Your task to perform on an android device: uninstall "PlayWell" Image 0: 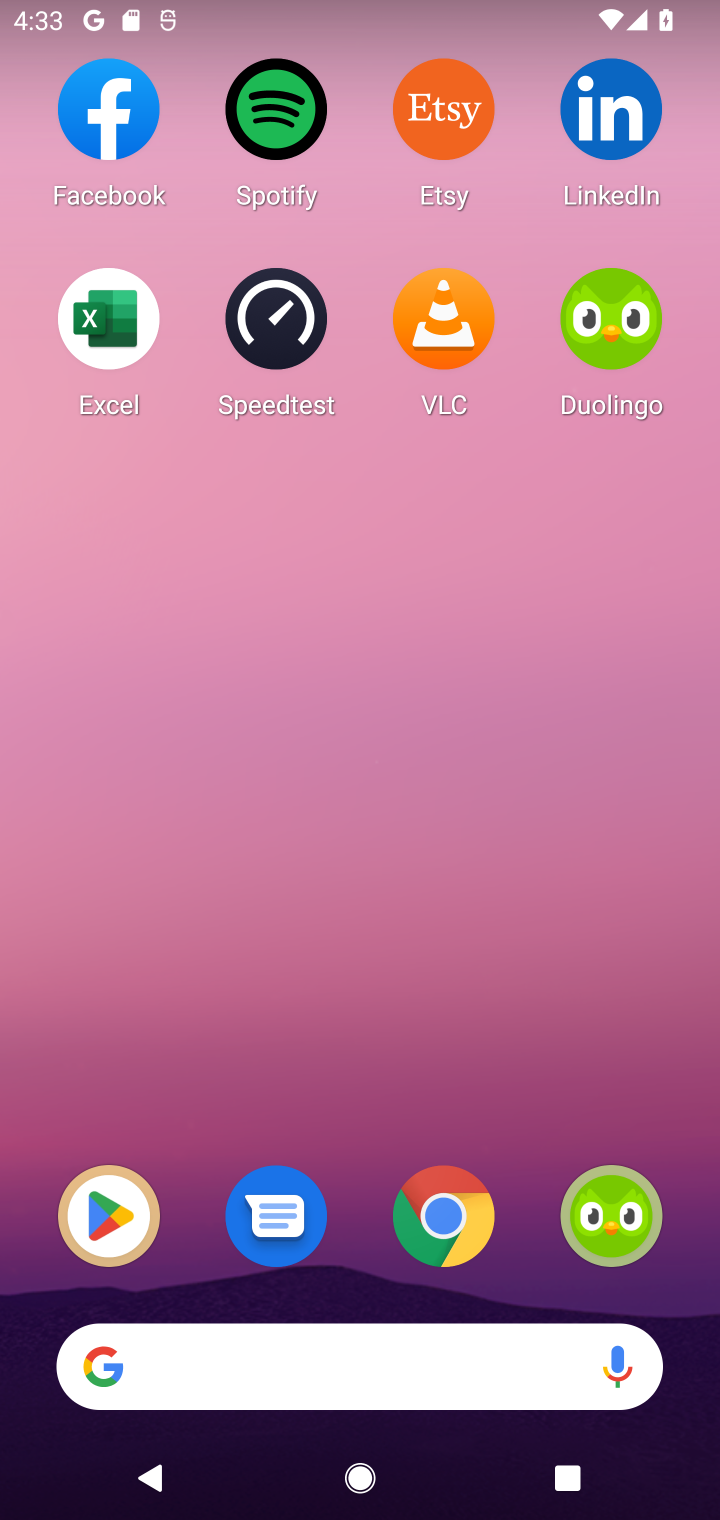
Step 0: click (114, 1250)
Your task to perform on an android device: uninstall "PlayWell" Image 1: 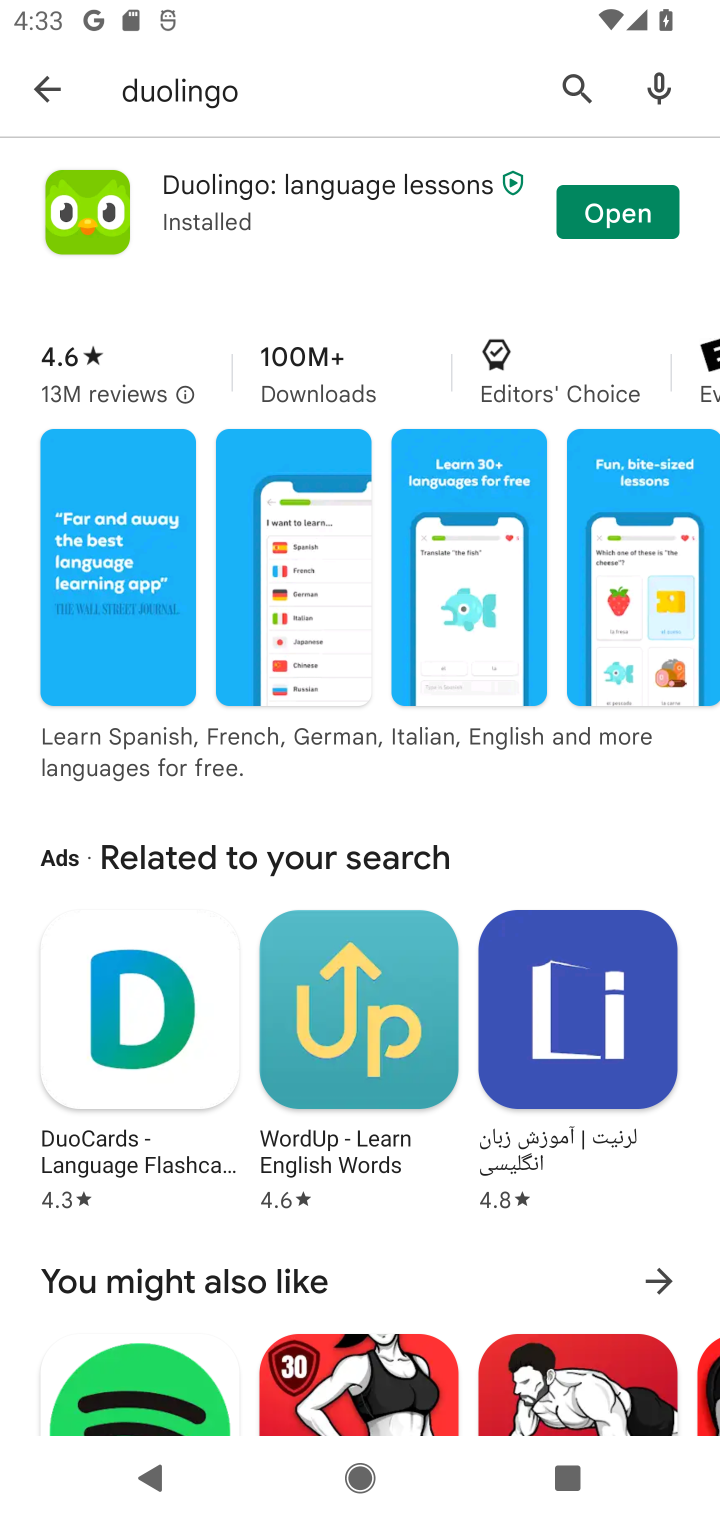
Step 1: click (564, 92)
Your task to perform on an android device: uninstall "PlayWell" Image 2: 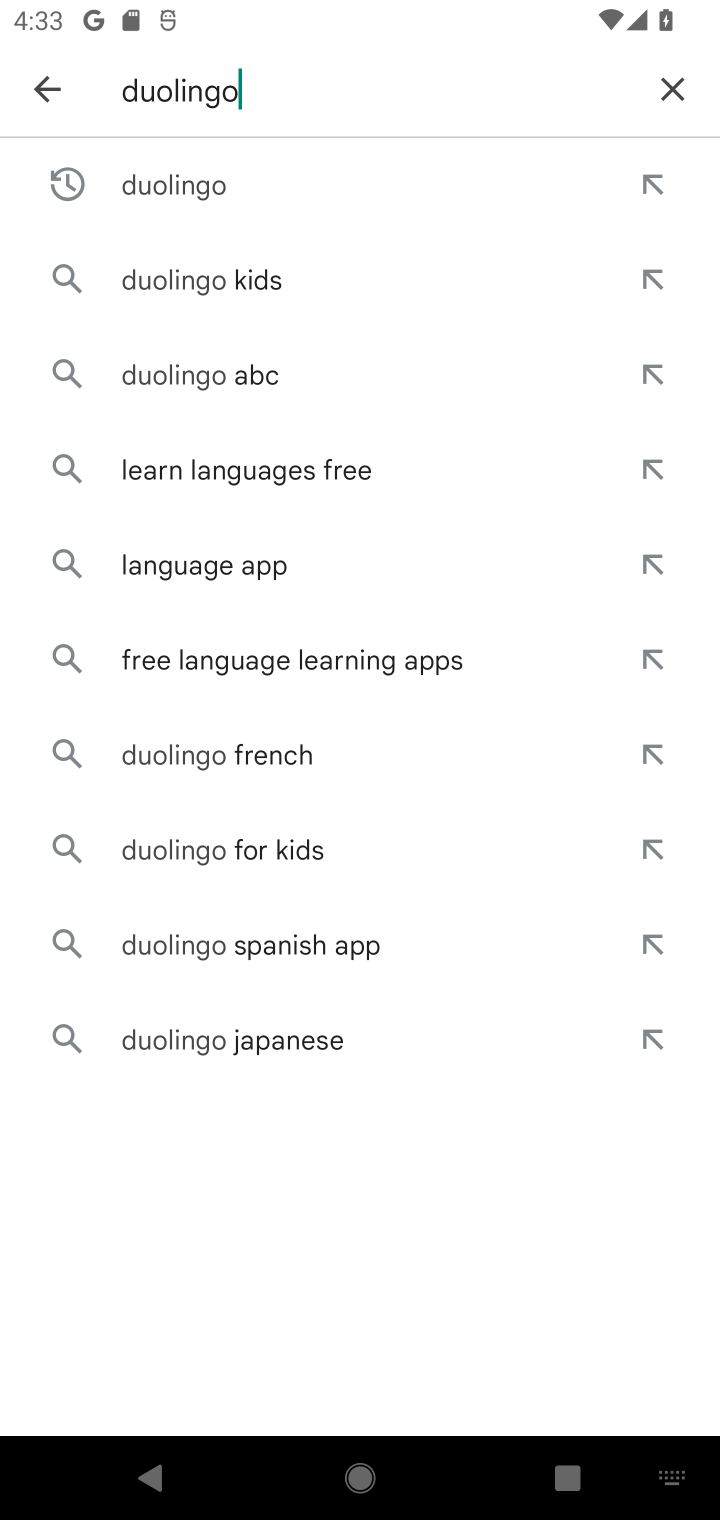
Step 2: click (653, 101)
Your task to perform on an android device: uninstall "PlayWell" Image 3: 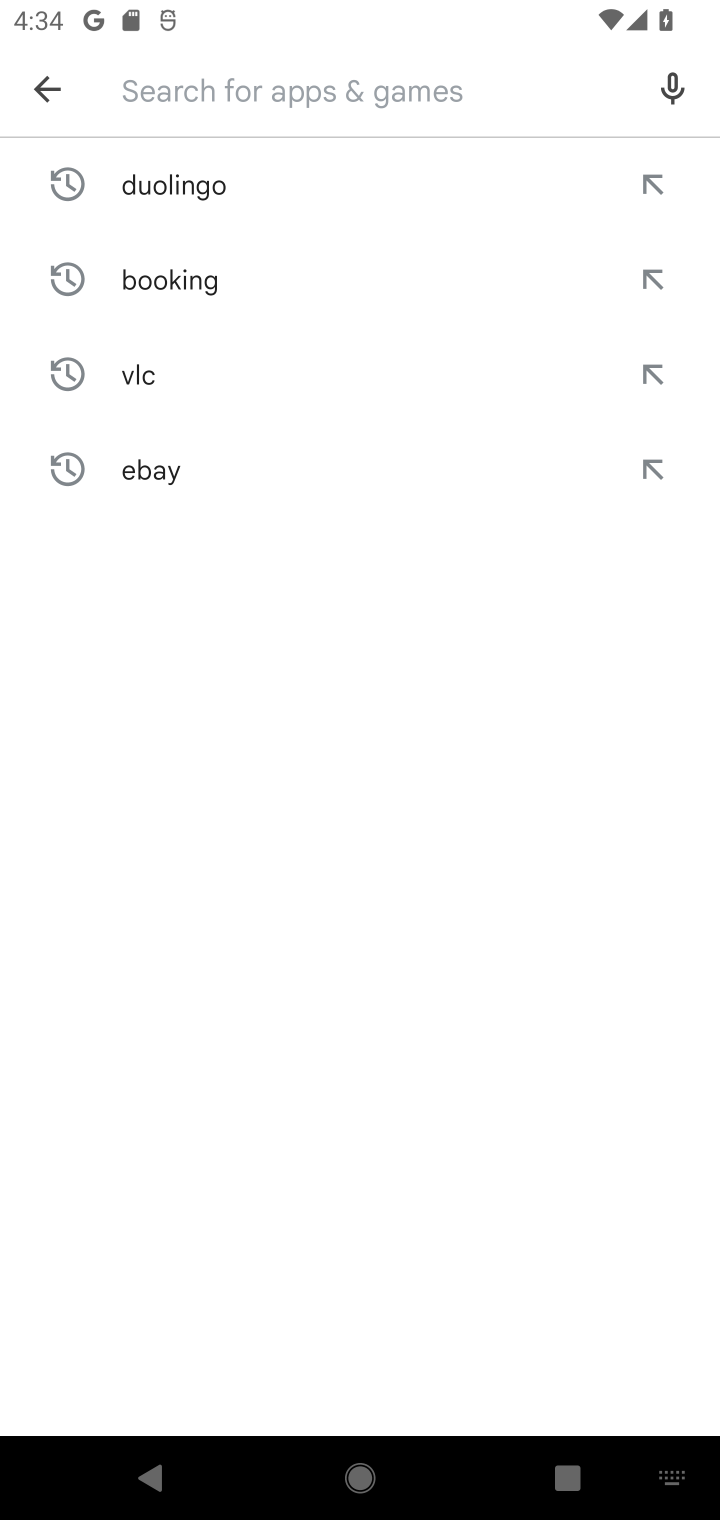
Step 3: type "playwell"
Your task to perform on an android device: uninstall "PlayWell" Image 4: 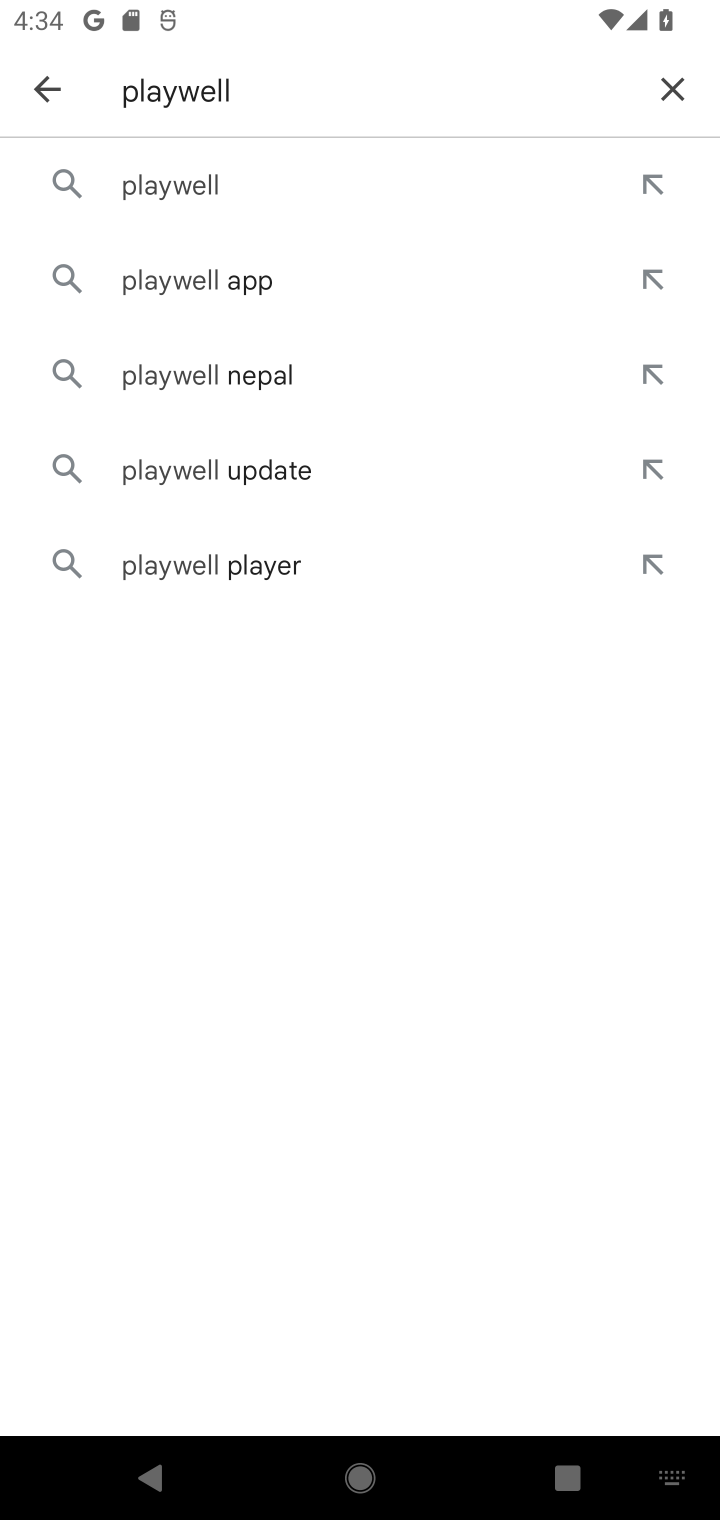
Step 4: click (240, 182)
Your task to perform on an android device: uninstall "PlayWell" Image 5: 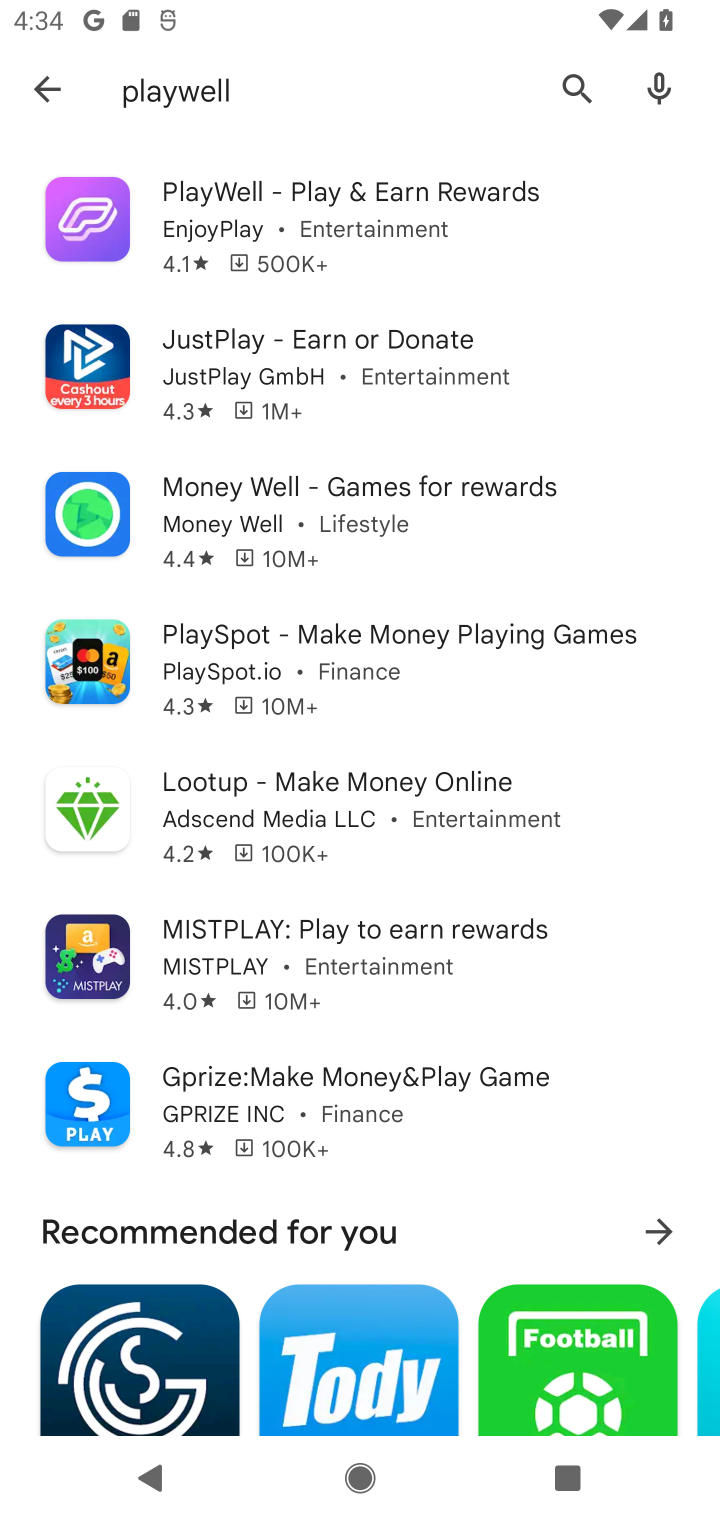
Step 5: click (434, 241)
Your task to perform on an android device: uninstall "PlayWell" Image 6: 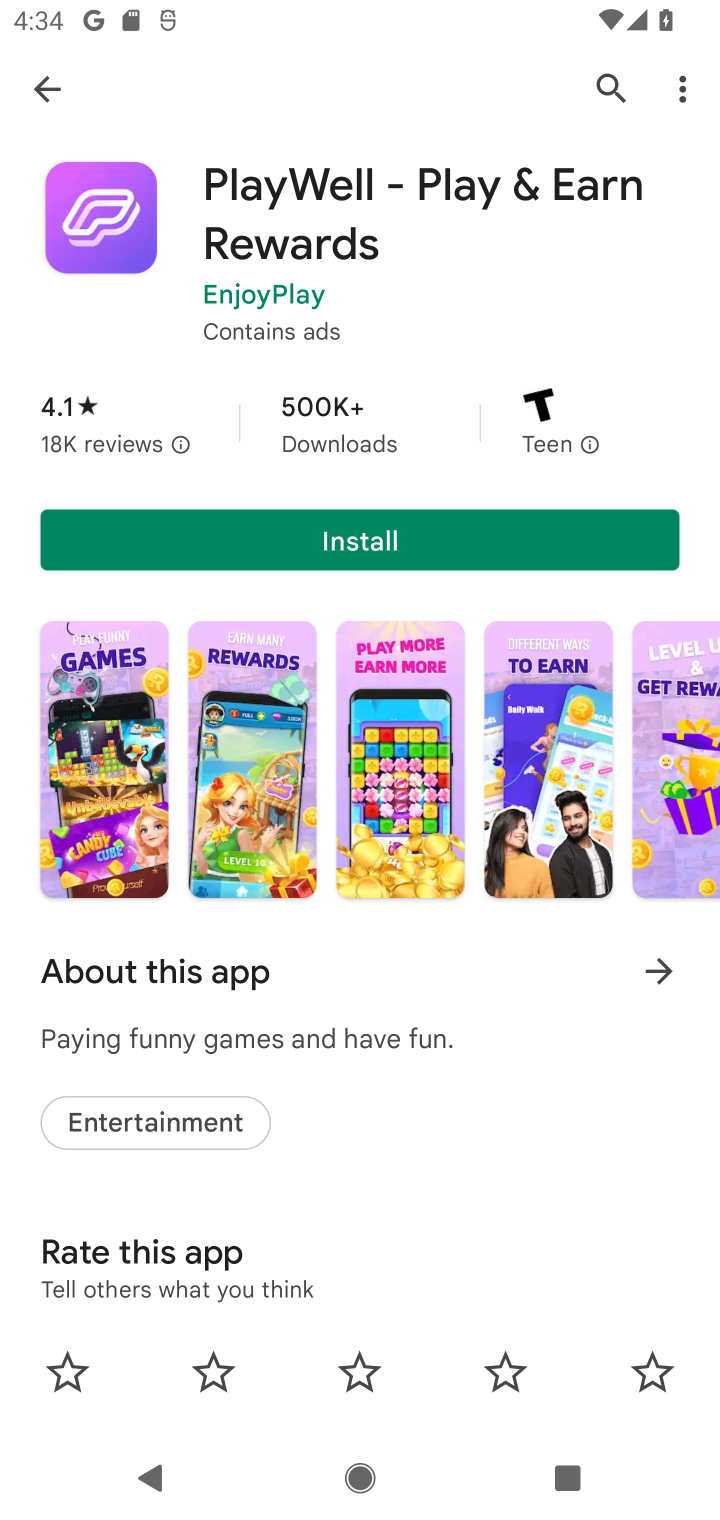
Step 6: click (432, 516)
Your task to perform on an android device: uninstall "PlayWell" Image 7: 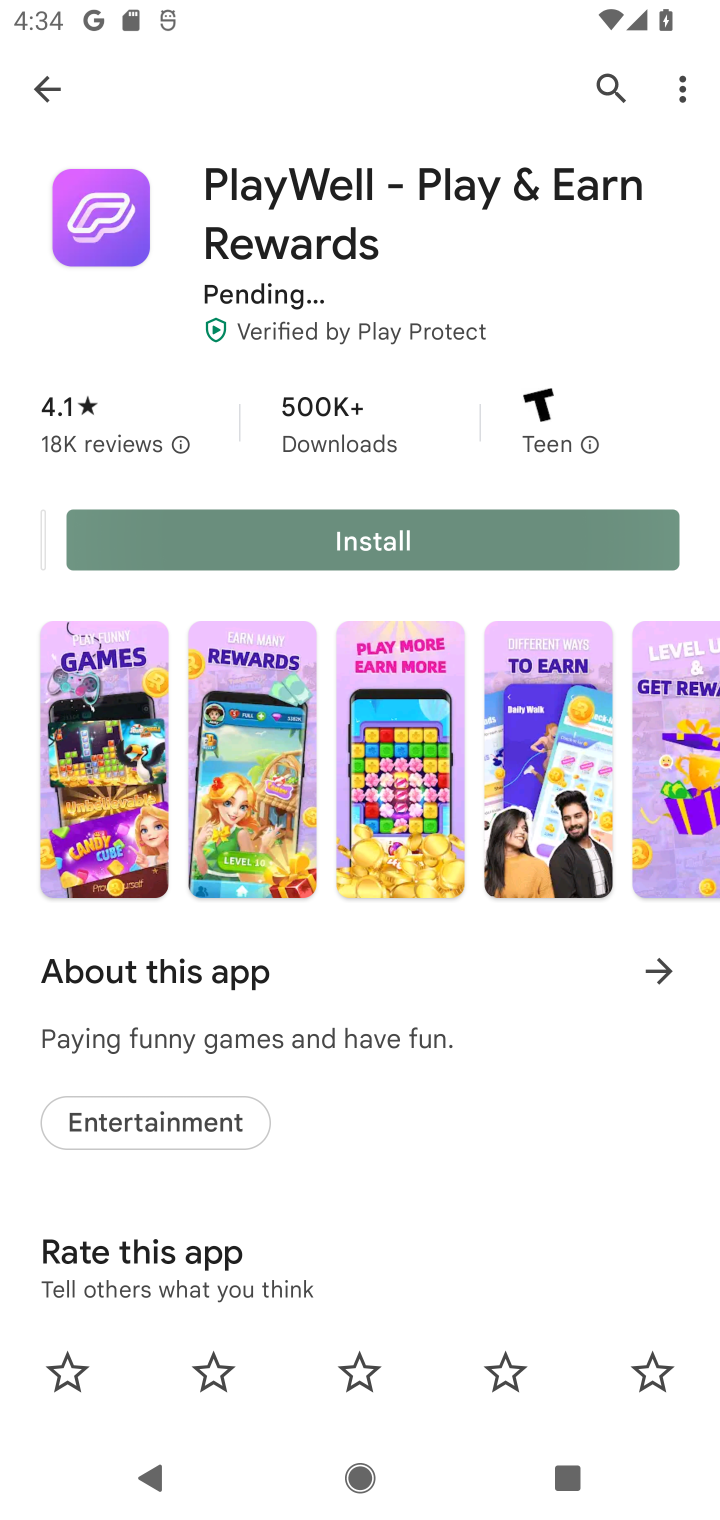
Step 7: task complete